Your task to perform on an android device: Search for Mexican restaurants on Maps Image 0: 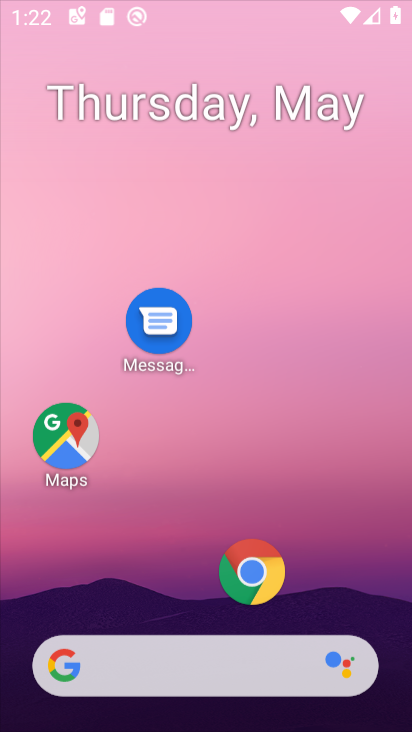
Step 0: click (210, 299)
Your task to perform on an android device: Search for Mexican restaurants on Maps Image 1: 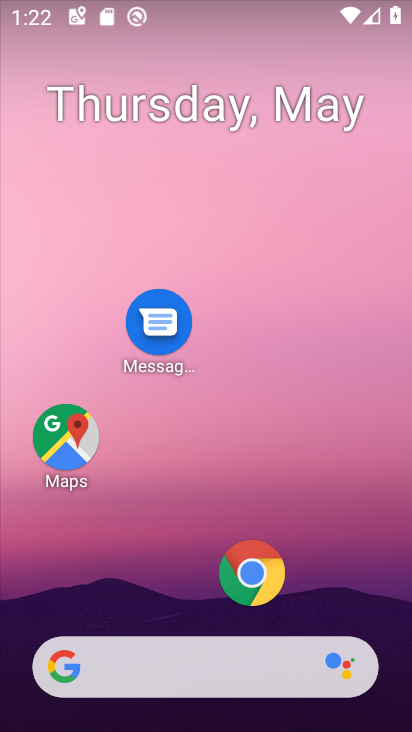
Step 1: drag from (200, 589) to (220, 135)
Your task to perform on an android device: Search for Mexican restaurants on Maps Image 2: 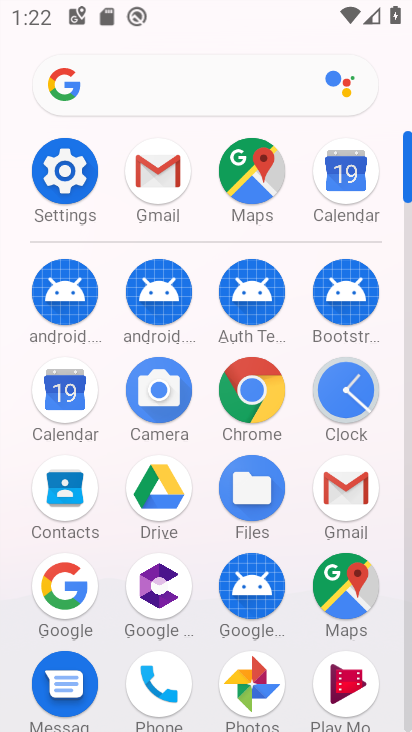
Step 2: click (350, 586)
Your task to perform on an android device: Search for Mexican restaurants on Maps Image 3: 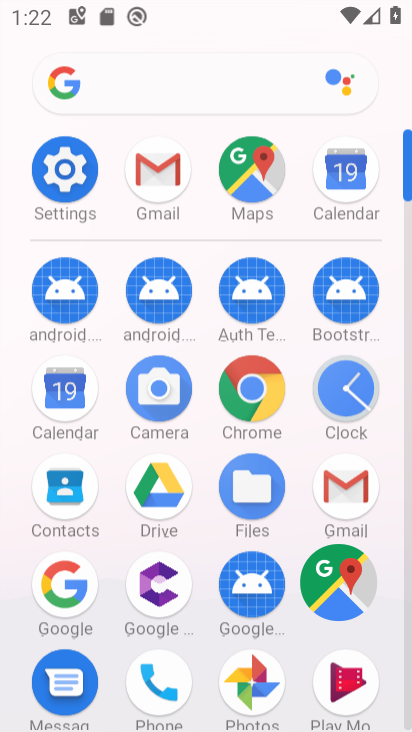
Step 3: click (350, 586)
Your task to perform on an android device: Search for Mexican restaurants on Maps Image 4: 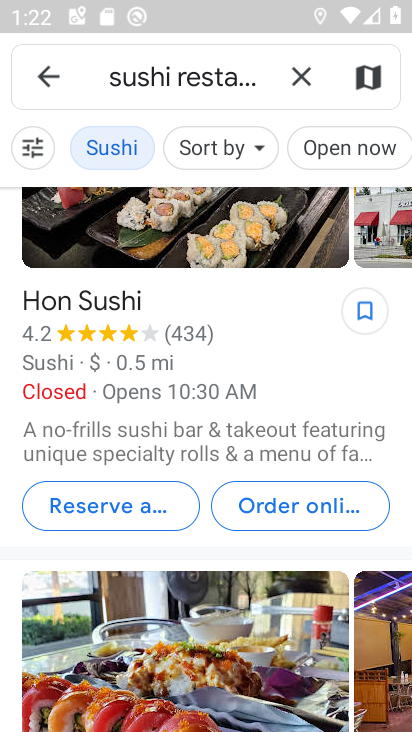
Step 4: click (60, 95)
Your task to perform on an android device: Search for Mexican restaurants on Maps Image 5: 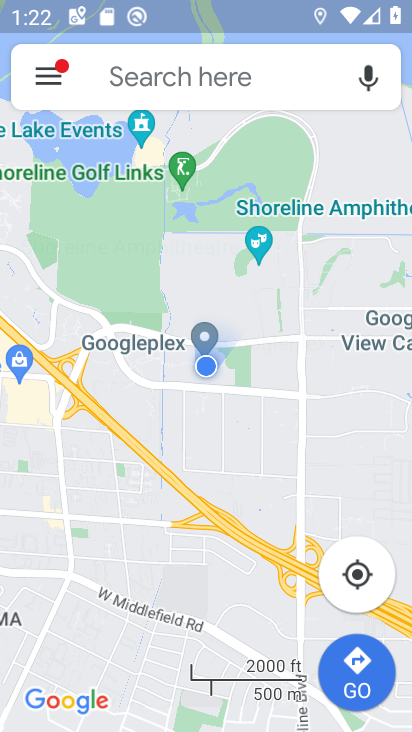
Step 5: click (216, 85)
Your task to perform on an android device: Search for Mexican restaurants on Maps Image 6: 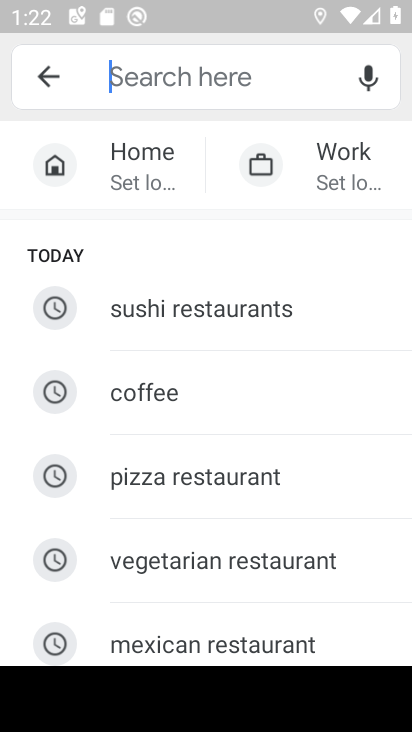
Step 6: click (209, 628)
Your task to perform on an android device: Search for Mexican restaurants on Maps Image 7: 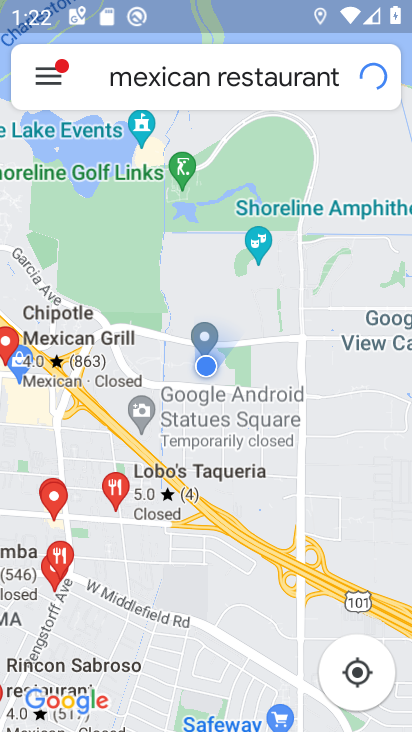
Step 7: task complete